Your task to perform on an android device: choose inbox layout in the gmail app Image 0: 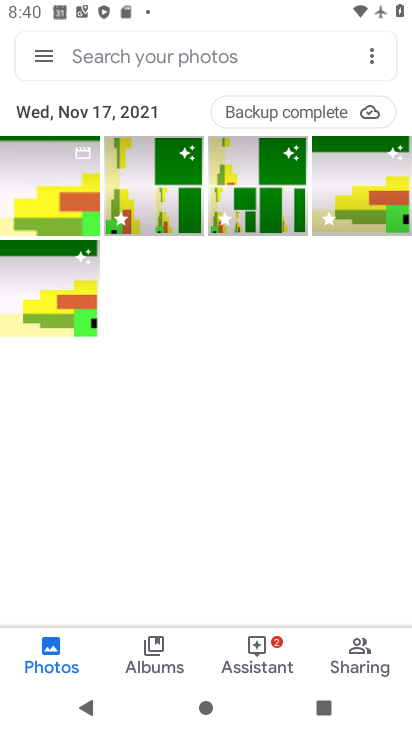
Step 0: press home button
Your task to perform on an android device: choose inbox layout in the gmail app Image 1: 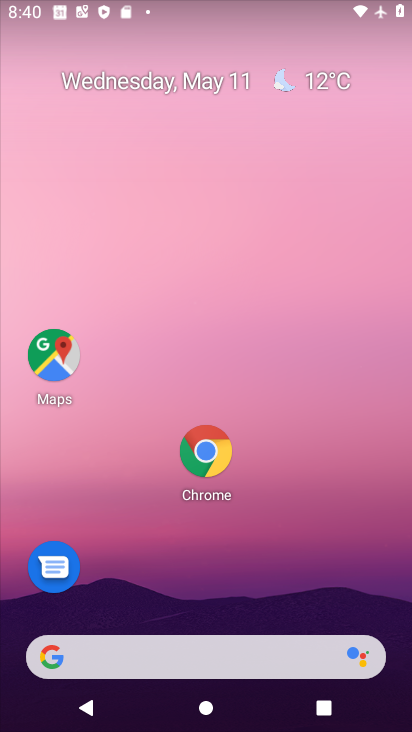
Step 1: drag from (233, 621) to (344, 301)
Your task to perform on an android device: choose inbox layout in the gmail app Image 2: 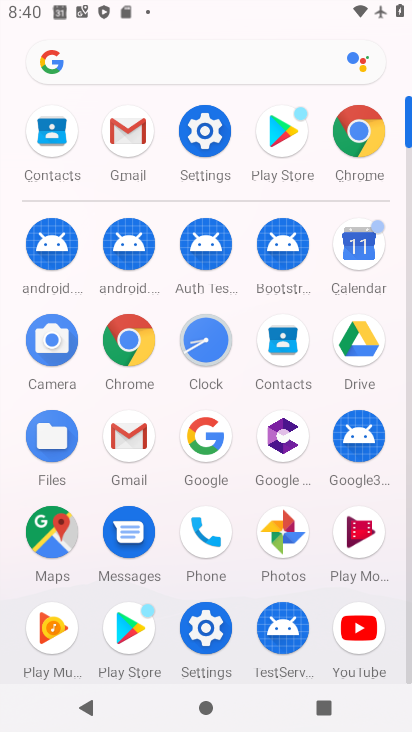
Step 2: click (119, 148)
Your task to perform on an android device: choose inbox layout in the gmail app Image 3: 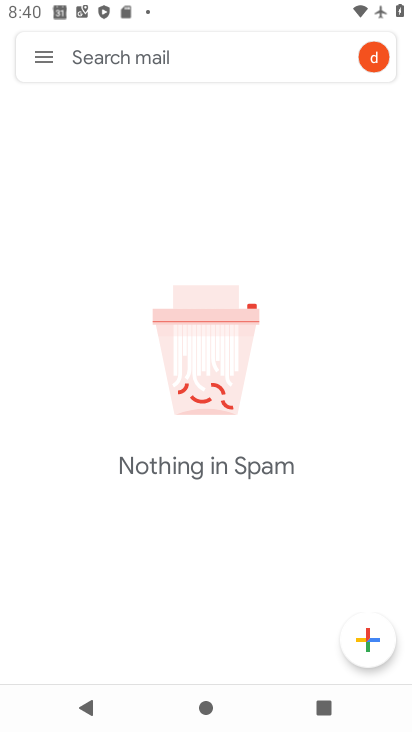
Step 3: click (49, 58)
Your task to perform on an android device: choose inbox layout in the gmail app Image 4: 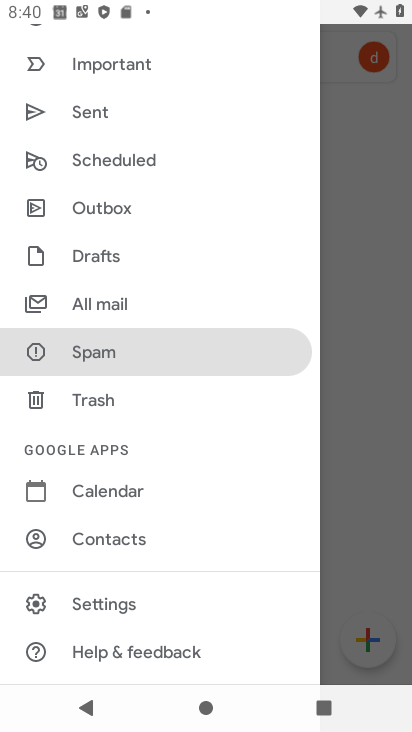
Step 4: click (109, 600)
Your task to perform on an android device: choose inbox layout in the gmail app Image 5: 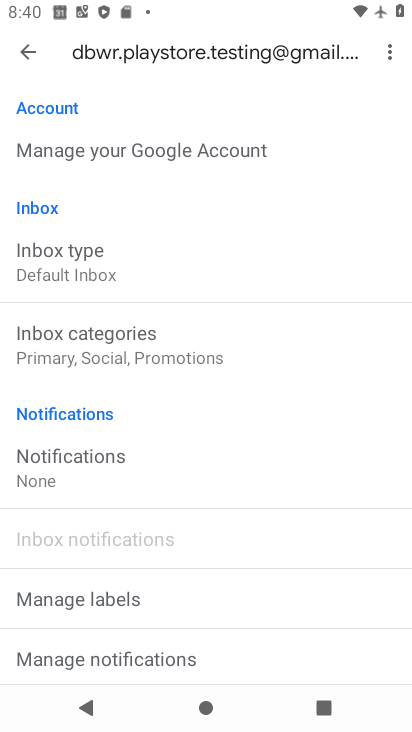
Step 5: click (77, 276)
Your task to perform on an android device: choose inbox layout in the gmail app Image 6: 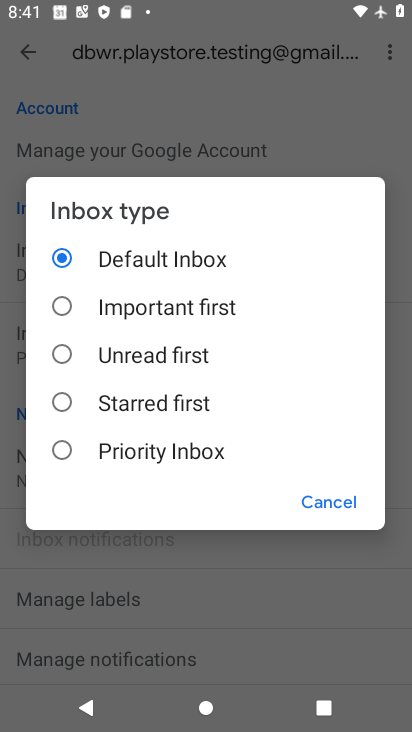
Step 6: click (58, 449)
Your task to perform on an android device: choose inbox layout in the gmail app Image 7: 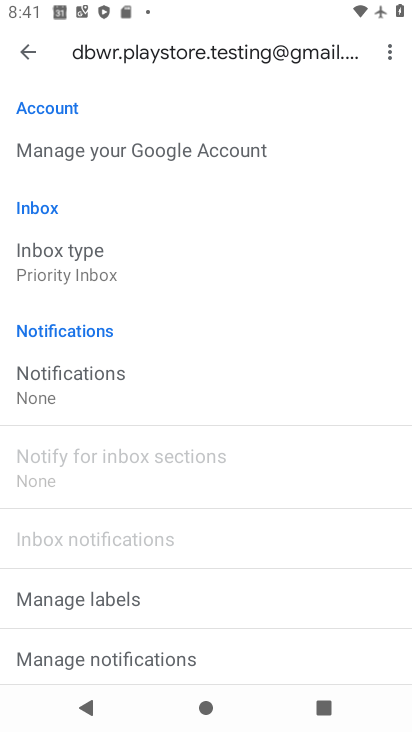
Step 7: task complete